Your task to perform on an android device: What's on my calendar today? Image 0: 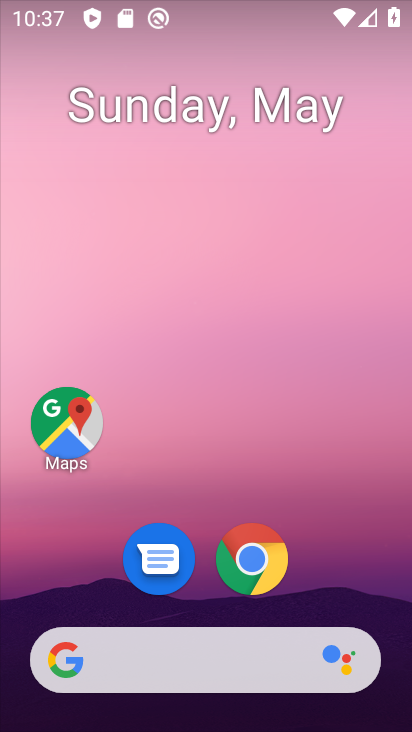
Step 0: click (114, 118)
Your task to perform on an android device: What's on my calendar today? Image 1: 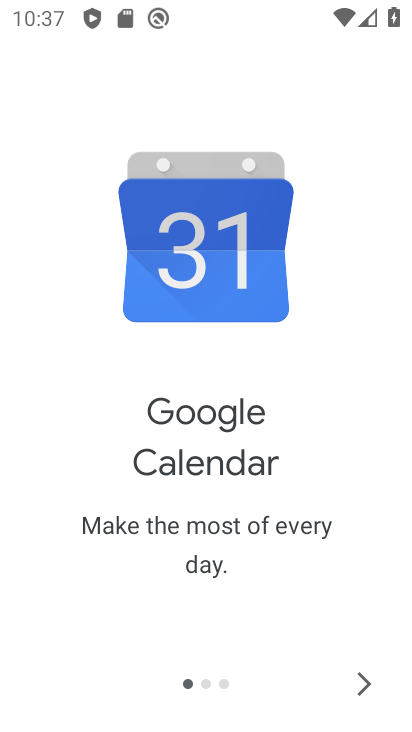
Step 1: click (381, 675)
Your task to perform on an android device: What's on my calendar today? Image 2: 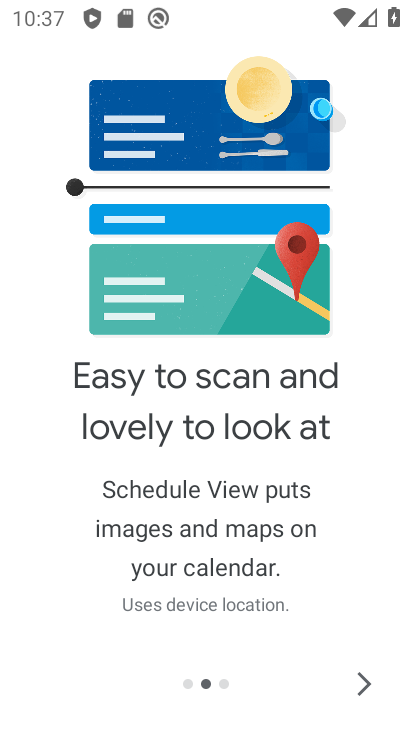
Step 2: click (381, 675)
Your task to perform on an android device: What's on my calendar today? Image 3: 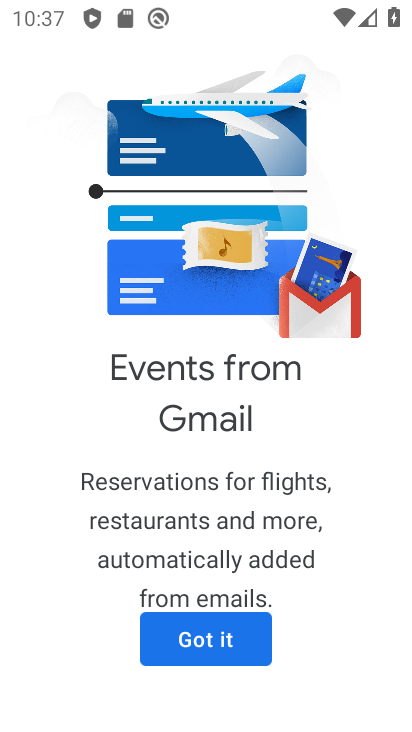
Step 3: click (205, 642)
Your task to perform on an android device: What's on my calendar today? Image 4: 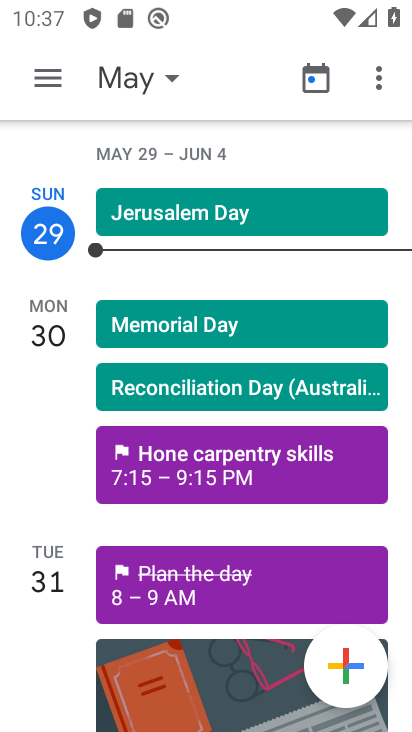
Step 4: task complete